Your task to perform on an android device: move an email to a new category in the gmail app Image 0: 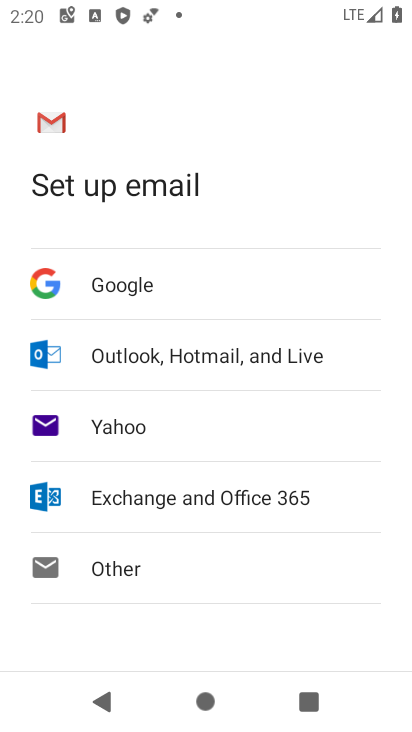
Step 0: press home button
Your task to perform on an android device: move an email to a new category in the gmail app Image 1: 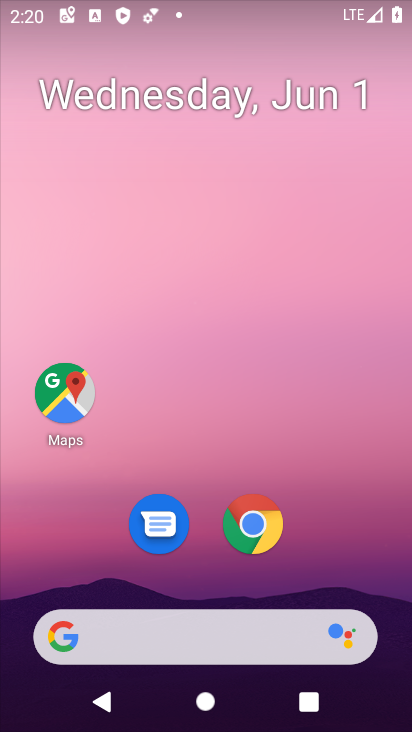
Step 1: drag from (212, 460) to (193, 44)
Your task to perform on an android device: move an email to a new category in the gmail app Image 2: 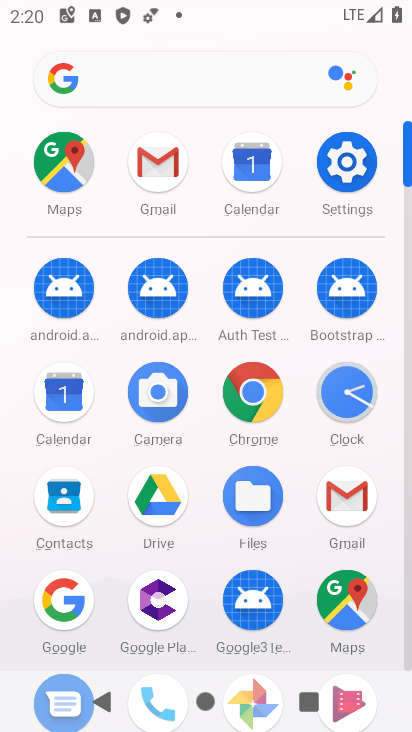
Step 2: click (155, 173)
Your task to perform on an android device: move an email to a new category in the gmail app Image 3: 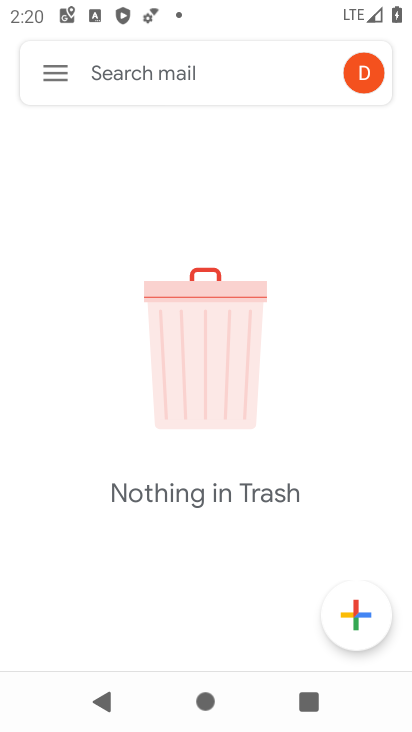
Step 3: click (58, 74)
Your task to perform on an android device: move an email to a new category in the gmail app Image 4: 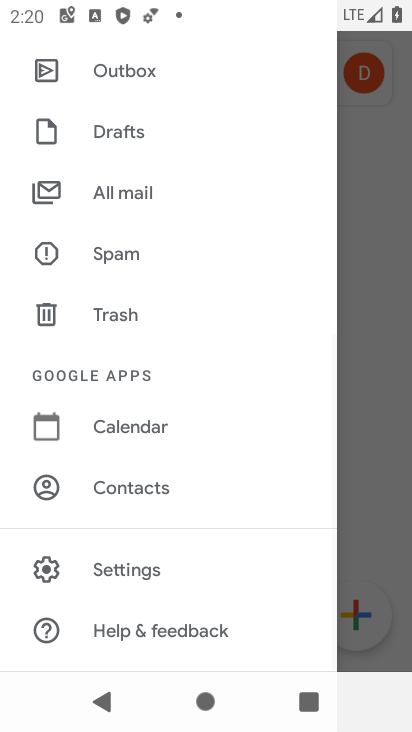
Step 4: click (119, 190)
Your task to perform on an android device: move an email to a new category in the gmail app Image 5: 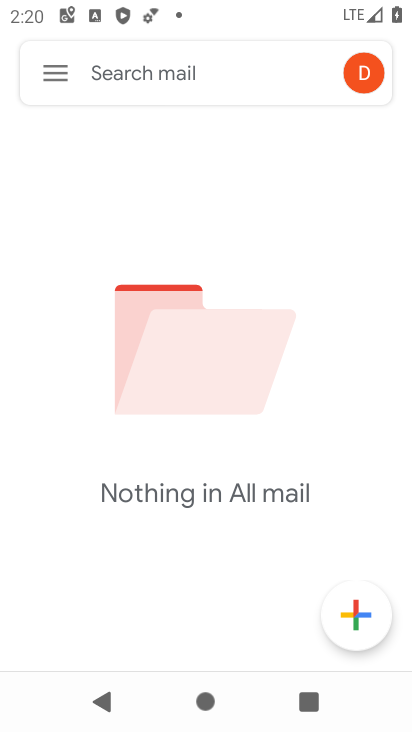
Step 5: task complete